Your task to perform on an android device: search for starred emails in the gmail app Image 0: 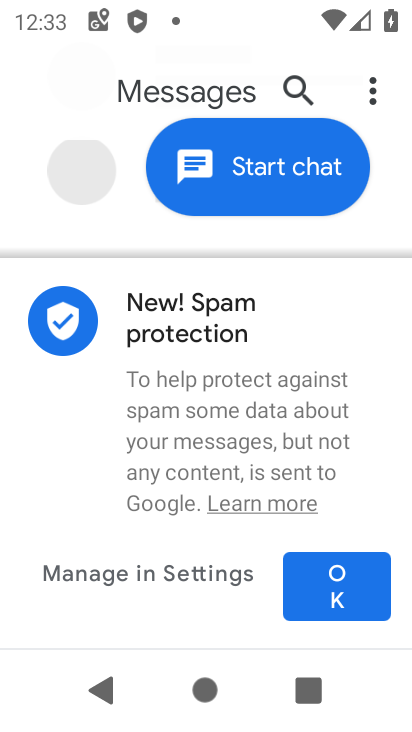
Step 0: press home button
Your task to perform on an android device: search for starred emails in the gmail app Image 1: 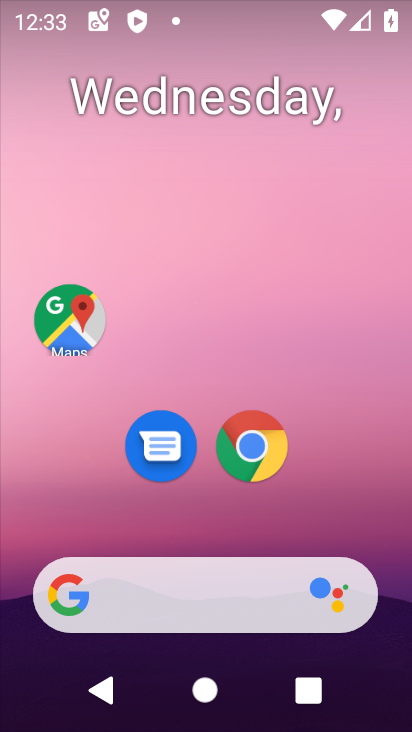
Step 1: drag from (228, 496) to (215, 160)
Your task to perform on an android device: search for starred emails in the gmail app Image 2: 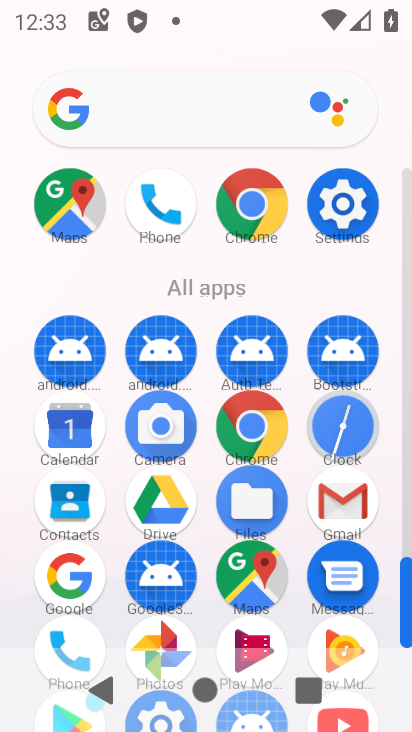
Step 2: click (343, 512)
Your task to perform on an android device: search for starred emails in the gmail app Image 3: 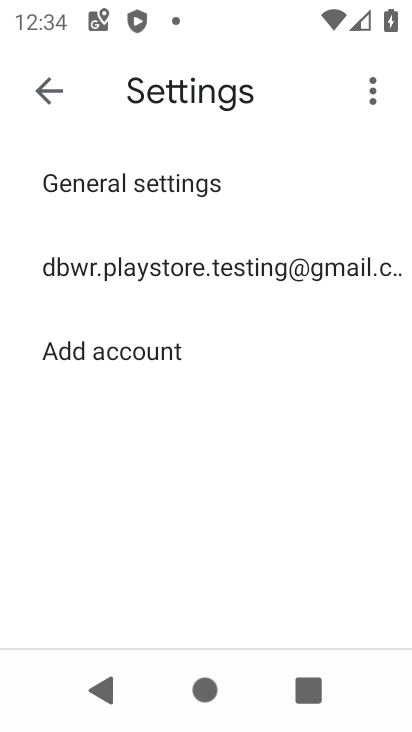
Step 3: press back button
Your task to perform on an android device: search for starred emails in the gmail app Image 4: 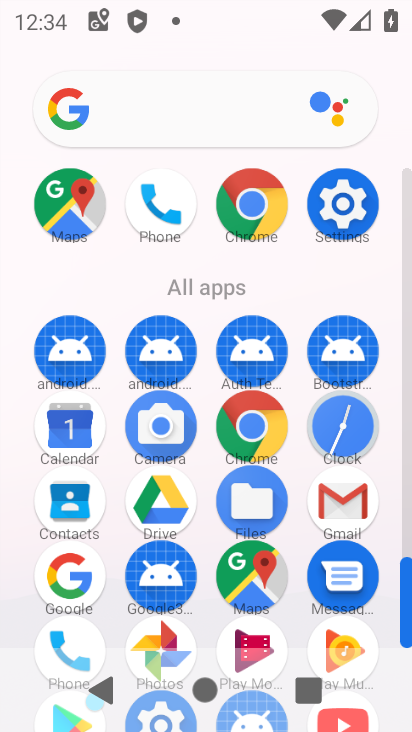
Step 4: click (347, 513)
Your task to perform on an android device: search for starred emails in the gmail app Image 5: 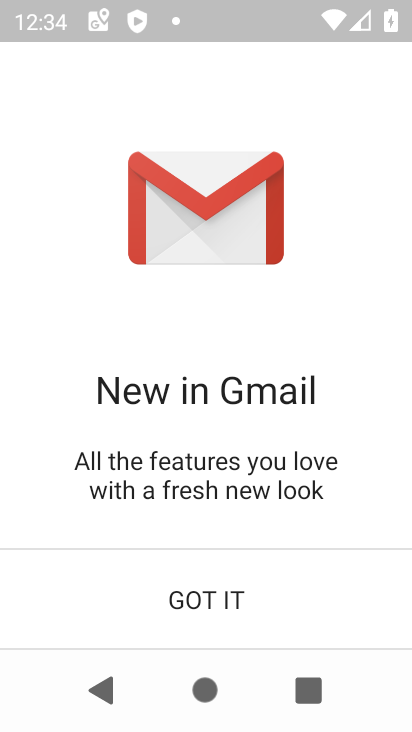
Step 5: click (247, 611)
Your task to perform on an android device: search for starred emails in the gmail app Image 6: 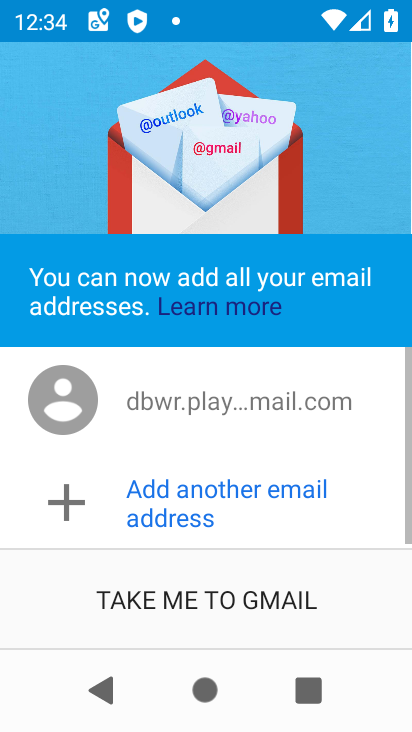
Step 6: click (247, 610)
Your task to perform on an android device: search for starred emails in the gmail app Image 7: 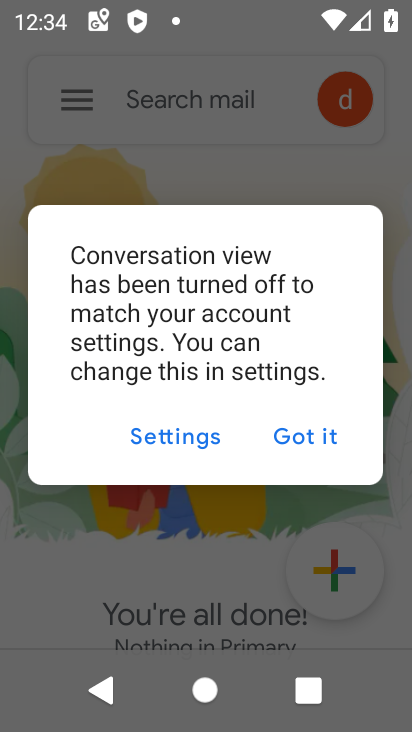
Step 7: click (315, 423)
Your task to perform on an android device: search for starred emails in the gmail app Image 8: 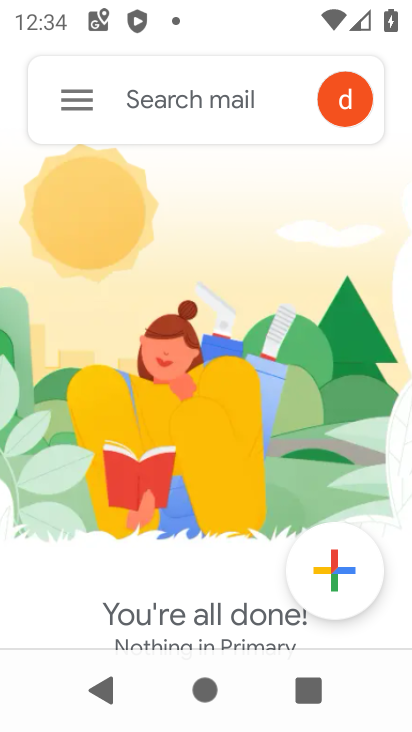
Step 8: click (79, 94)
Your task to perform on an android device: search for starred emails in the gmail app Image 9: 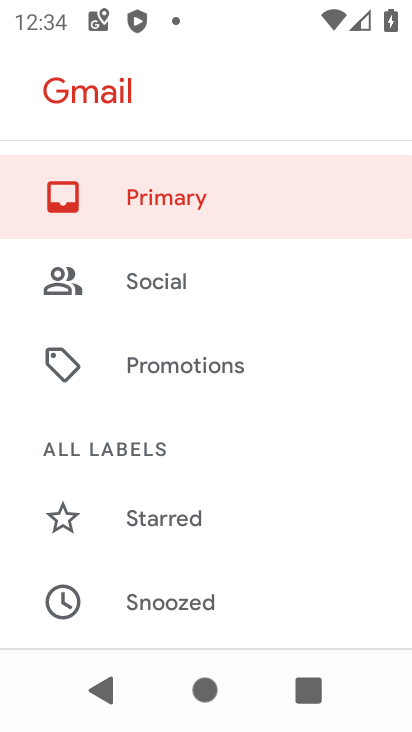
Step 9: click (162, 528)
Your task to perform on an android device: search for starred emails in the gmail app Image 10: 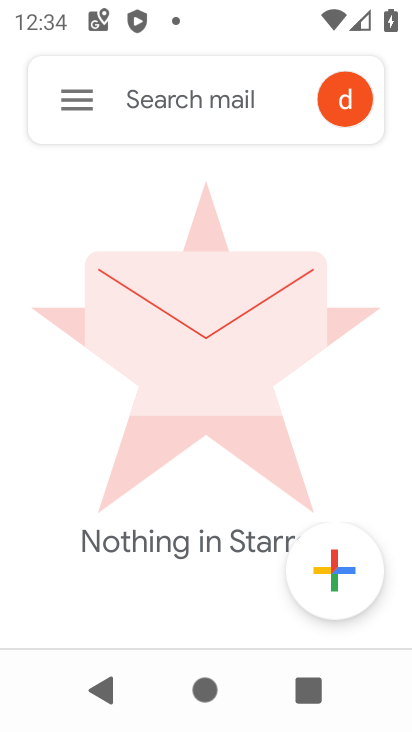
Step 10: task complete